Your task to perform on an android device: Open notification settings Image 0: 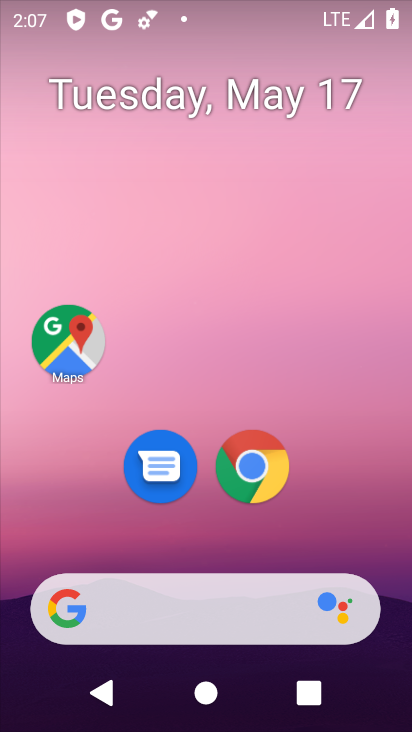
Step 0: drag from (325, 509) to (374, 125)
Your task to perform on an android device: Open notification settings Image 1: 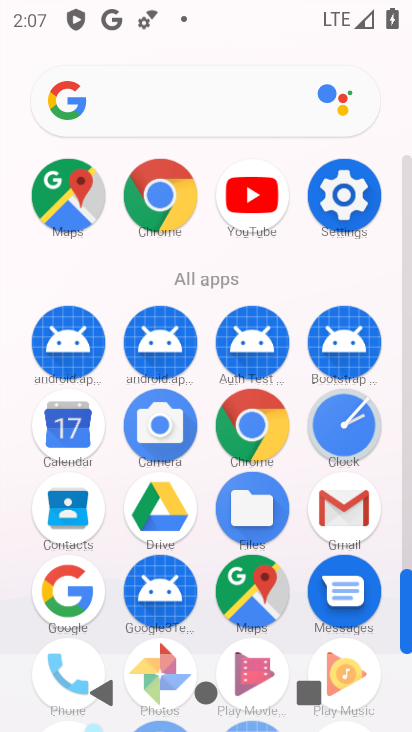
Step 1: click (346, 179)
Your task to perform on an android device: Open notification settings Image 2: 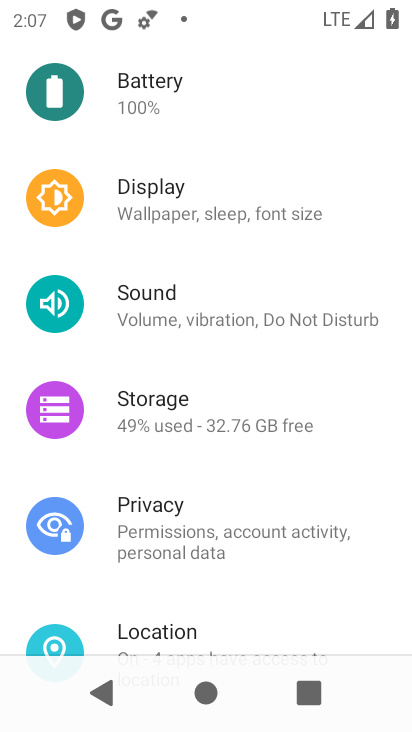
Step 2: drag from (191, 572) to (298, 699)
Your task to perform on an android device: Open notification settings Image 3: 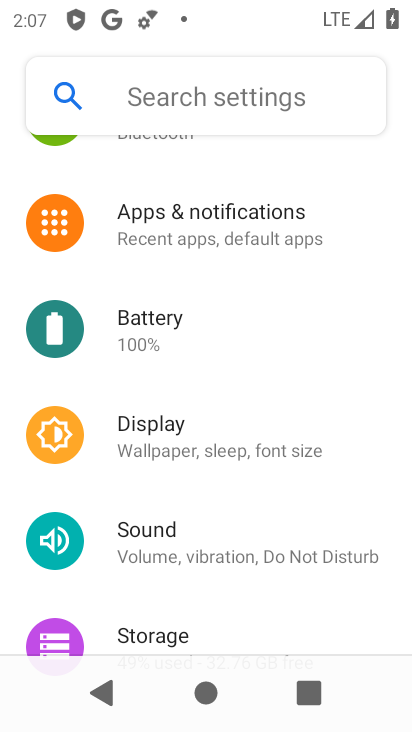
Step 3: click (197, 244)
Your task to perform on an android device: Open notification settings Image 4: 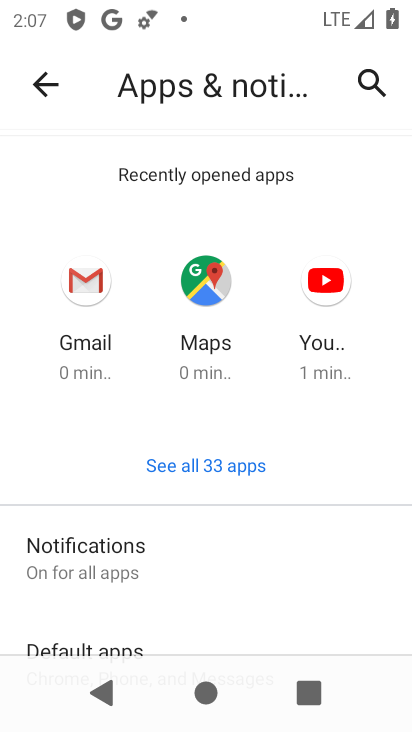
Step 4: click (120, 564)
Your task to perform on an android device: Open notification settings Image 5: 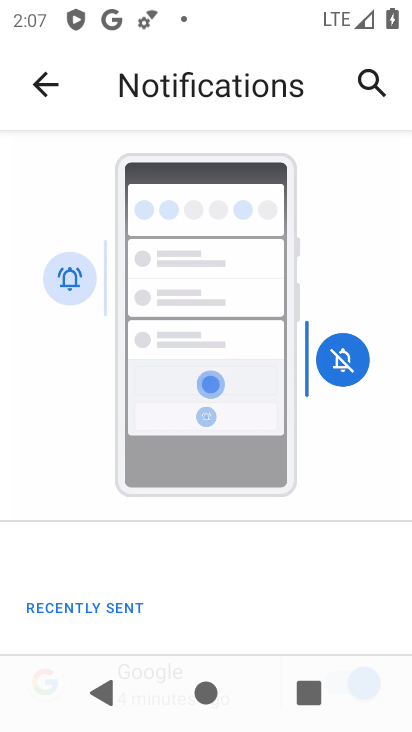
Step 5: task complete